Your task to perform on an android device: Open calendar and show me the third week of next month Image 0: 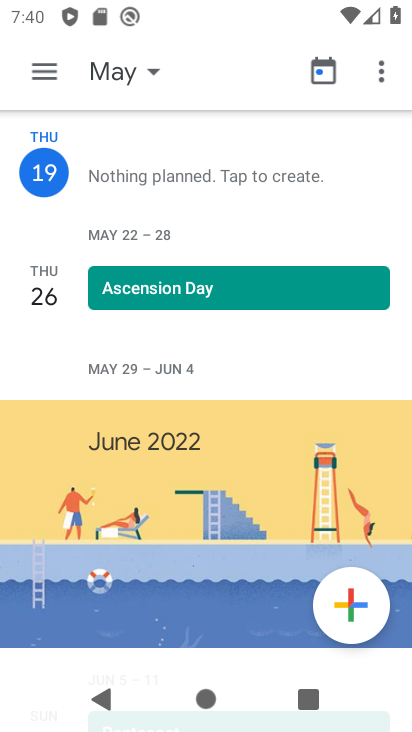
Step 0: press home button
Your task to perform on an android device: Open calendar and show me the third week of next month Image 1: 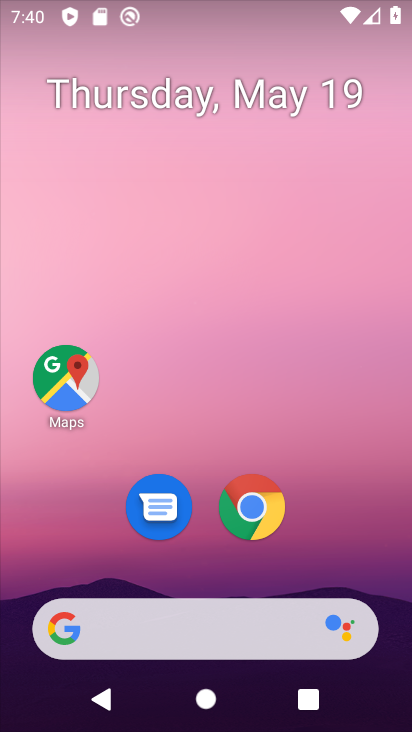
Step 1: drag from (347, 503) to (300, 128)
Your task to perform on an android device: Open calendar and show me the third week of next month Image 2: 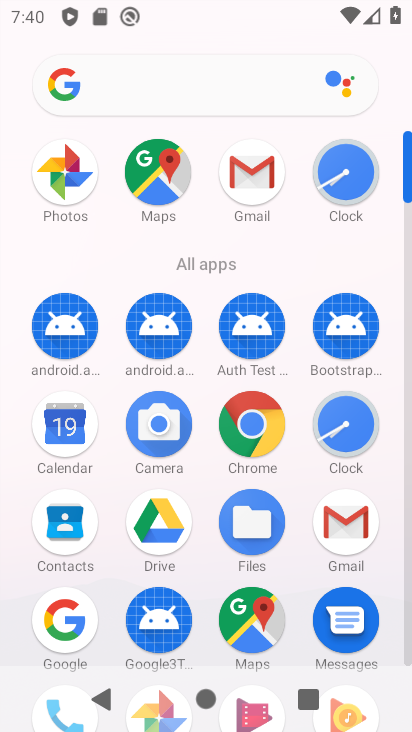
Step 2: click (62, 425)
Your task to perform on an android device: Open calendar and show me the third week of next month Image 3: 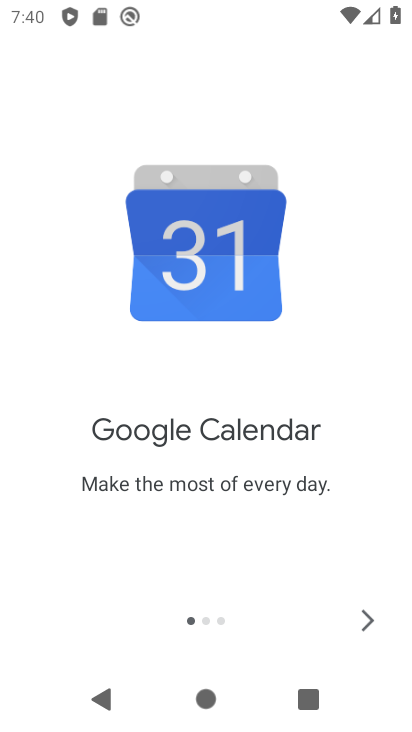
Step 3: click (370, 628)
Your task to perform on an android device: Open calendar and show me the third week of next month Image 4: 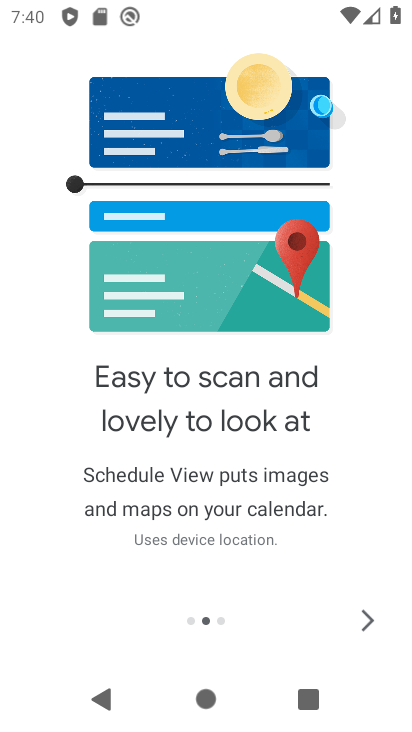
Step 4: click (370, 628)
Your task to perform on an android device: Open calendar and show me the third week of next month Image 5: 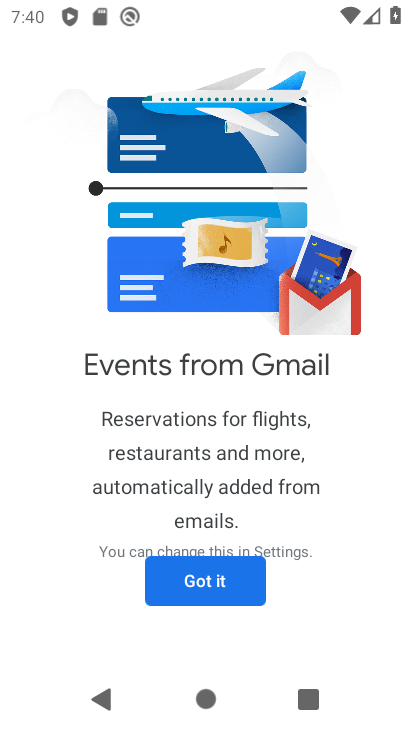
Step 5: click (187, 584)
Your task to perform on an android device: Open calendar and show me the third week of next month Image 6: 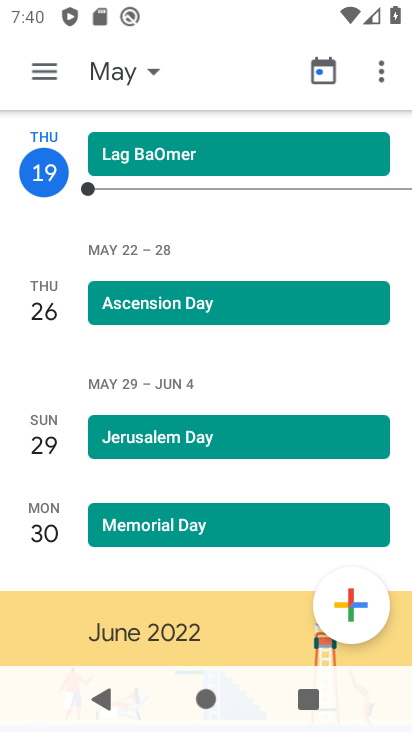
Step 6: click (125, 69)
Your task to perform on an android device: Open calendar and show me the third week of next month Image 7: 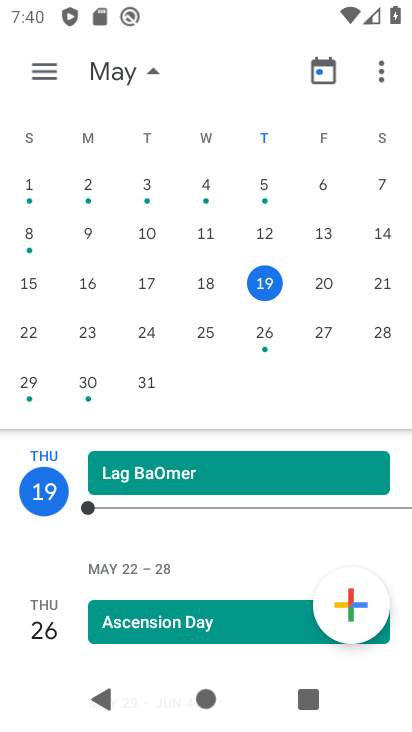
Step 7: drag from (381, 314) to (0, 274)
Your task to perform on an android device: Open calendar and show me the third week of next month Image 8: 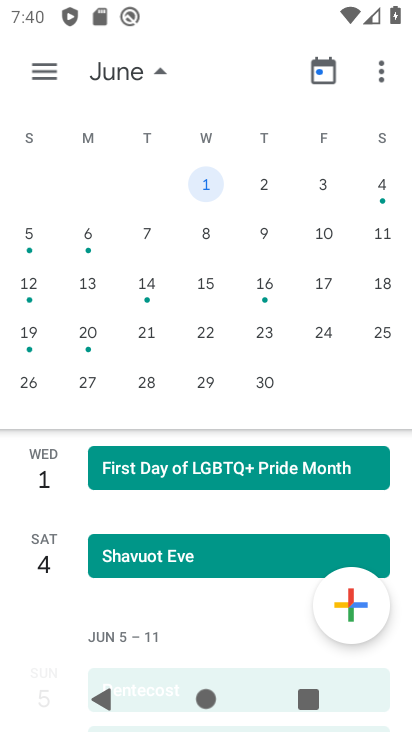
Step 8: click (28, 327)
Your task to perform on an android device: Open calendar and show me the third week of next month Image 9: 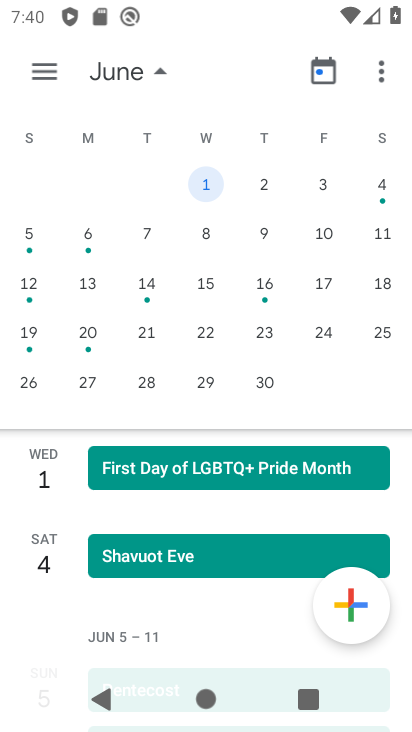
Step 9: click (41, 71)
Your task to perform on an android device: Open calendar and show me the third week of next month Image 10: 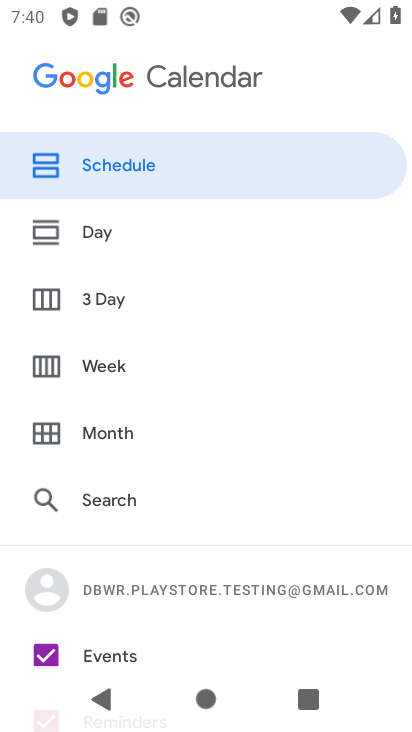
Step 10: click (103, 361)
Your task to perform on an android device: Open calendar and show me the third week of next month Image 11: 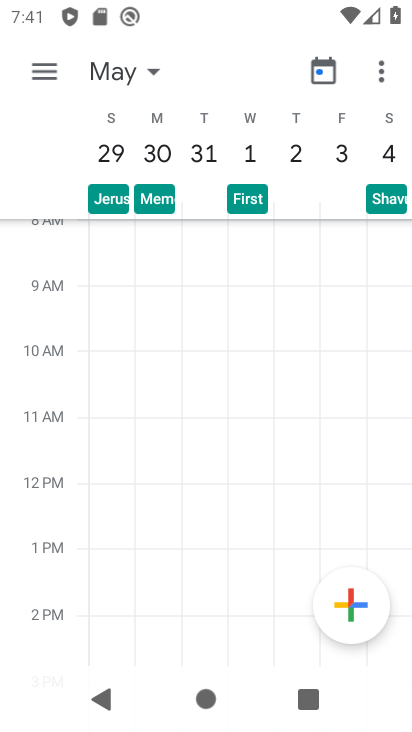
Step 11: click (116, 66)
Your task to perform on an android device: Open calendar and show me the third week of next month Image 12: 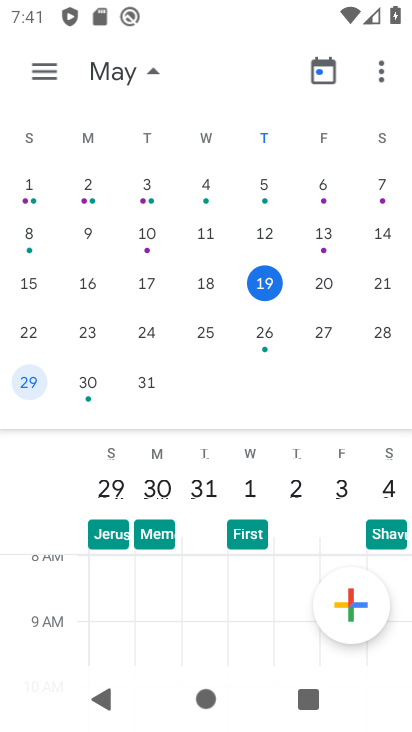
Step 12: drag from (385, 337) to (6, 305)
Your task to perform on an android device: Open calendar and show me the third week of next month Image 13: 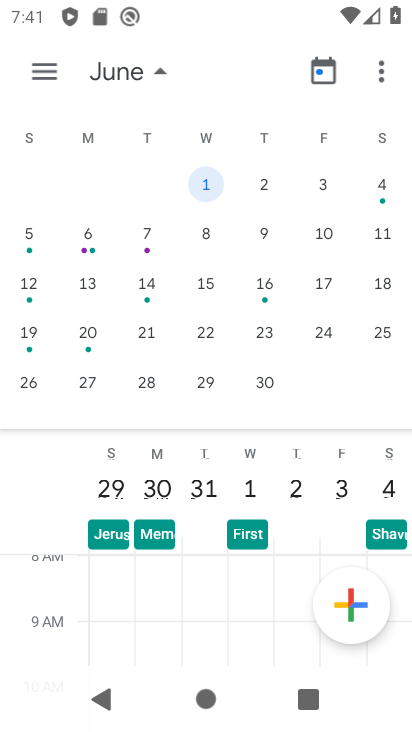
Step 13: click (27, 333)
Your task to perform on an android device: Open calendar and show me the third week of next month Image 14: 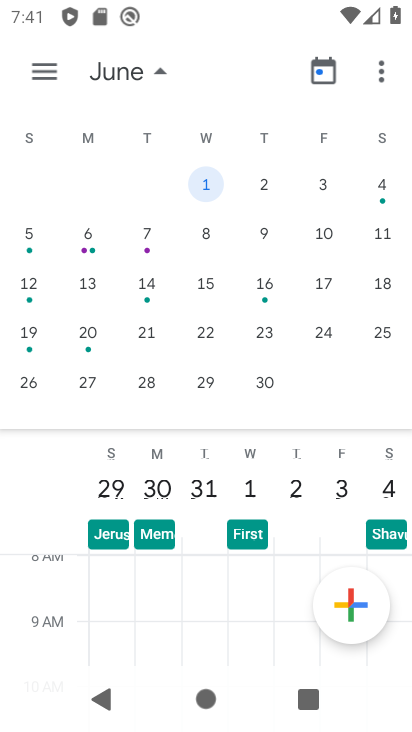
Step 14: click (27, 332)
Your task to perform on an android device: Open calendar and show me the third week of next month Image 15: 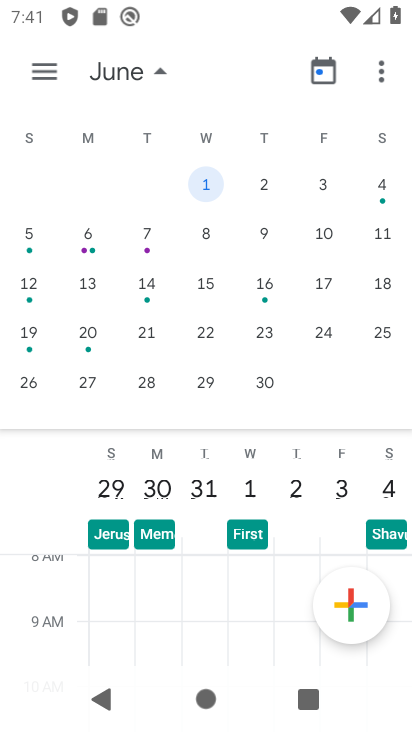
Step 15: click (34, 332)
Your task to perform on an android device: Open calendar and show me the third week of next month Image 16: 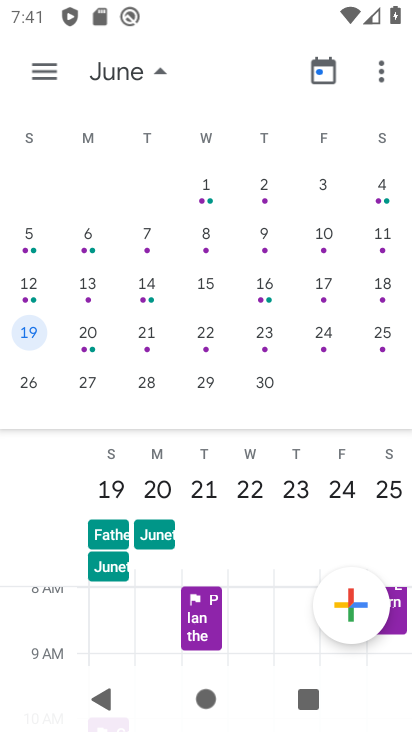
Step 16: task complete